Your task to perform on an android device: toggle show notifications on the lock screen Image 0: 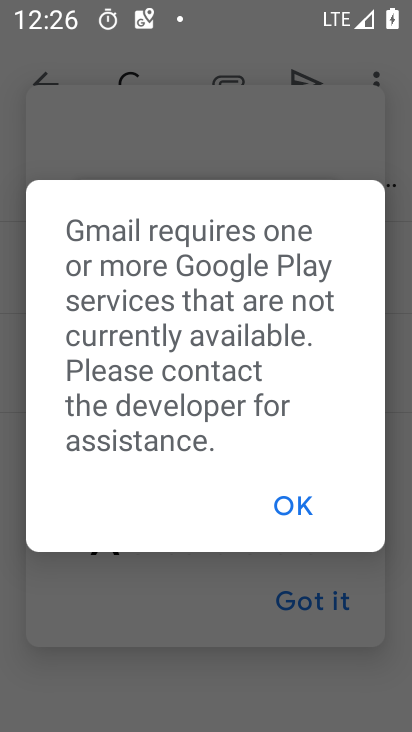
Step 0: click (314, 517)
Your task to perform on an android device: toggle show notifications on the lock screen Image 1: 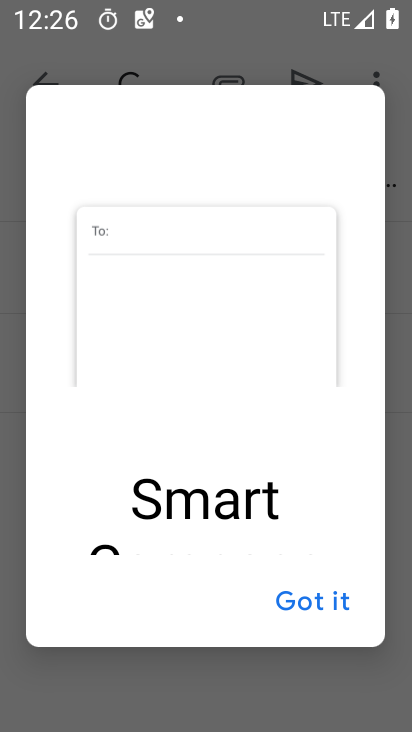
Step 1: press home button
Your task to perform on an android device: toggle show notifications on the lock screen Image 2: 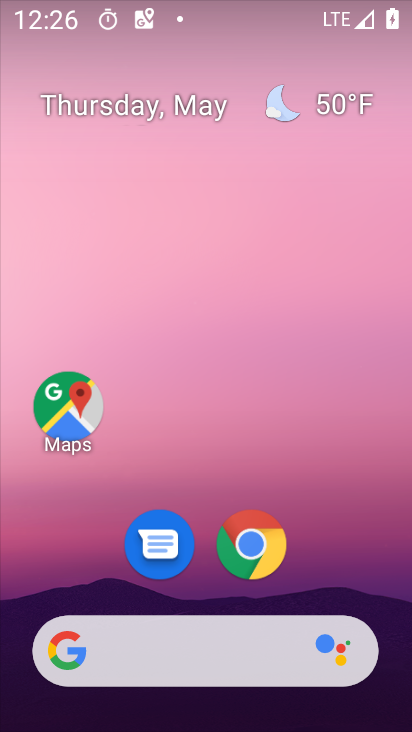
Step 2: drag from (165, 637) to (250, 60)
Your task to perform on an android device: toggle show notifications on the lock screen Image 3: 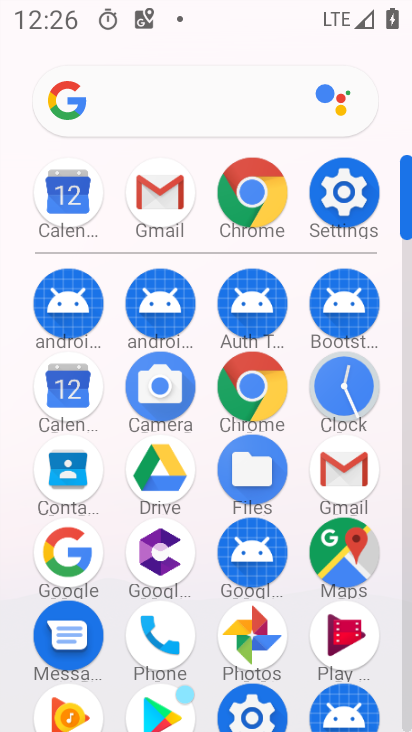
Step 3: click (345, 212)
Your task to perform on an android device: toggle show notifications on the lock screen Image 4: 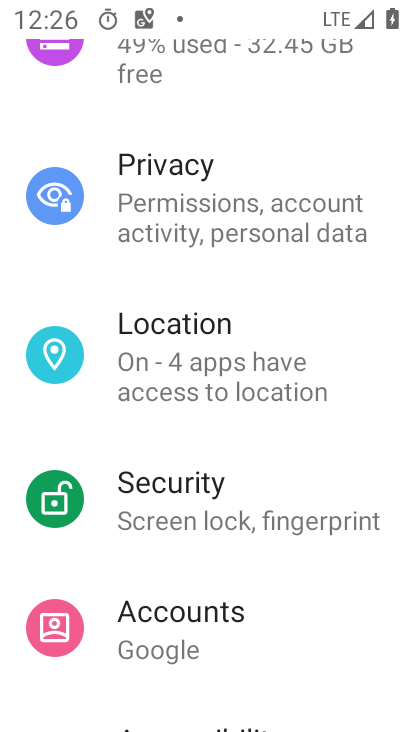
Step 4: drag from (196, 281) to (211, 523)
Your task to perform on an android device: toggle show notifications on the lock screen Image 5: 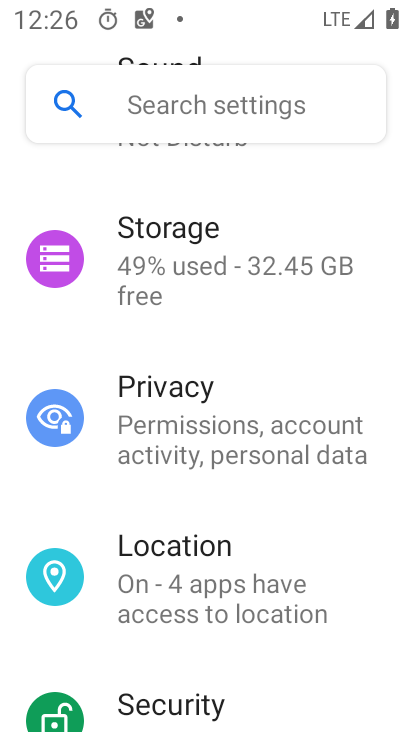
Step 5: drag from (185, 286) to (172, 731)
Your task to perform on an android device: toggle show notifications on the lock screen Image 6: 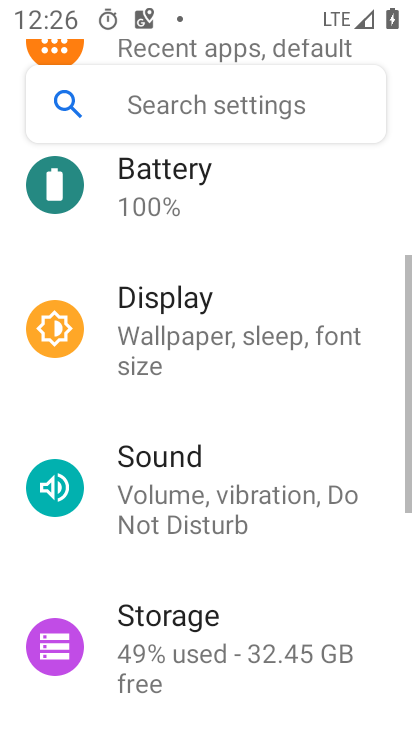
Step 6: drag from (169, 220) to (169, 662)
Your task to perform on an android device: toggle show notifications on the lock screen Image 7: 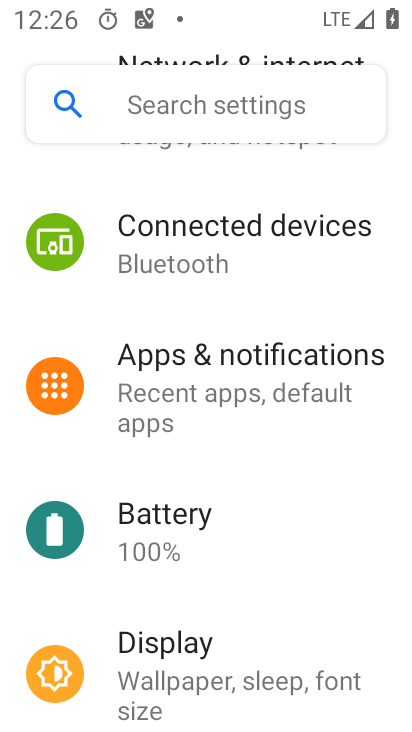
Step 7: click (202, 397)
Your task to perform on an android device: toggle show notifications on the lock screen Image 8: 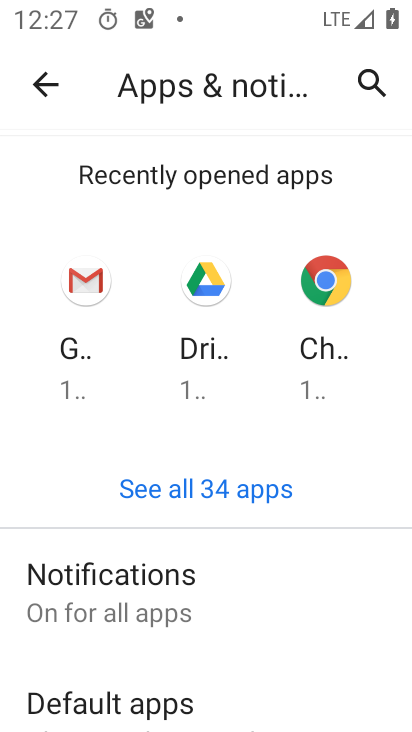
Step 8: click (179, 609)
Your task to perform on an android device: toggle show notifications on the lock screen Image 9: 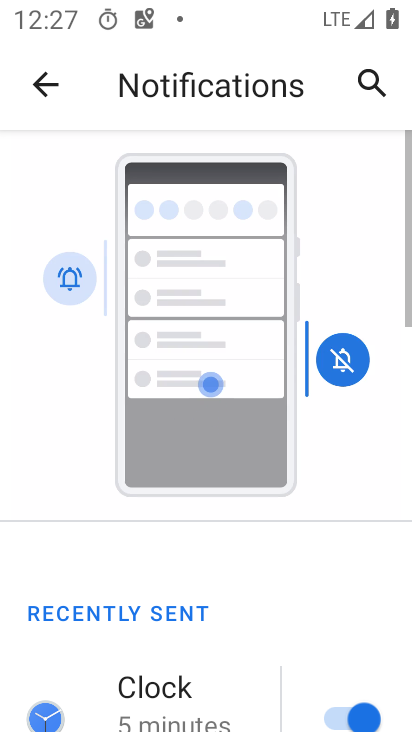
Step 9: drag from (207, 635) to (181, 162)
Your task to perform on an android device: toggle show notifications on the lock screen Image 10: 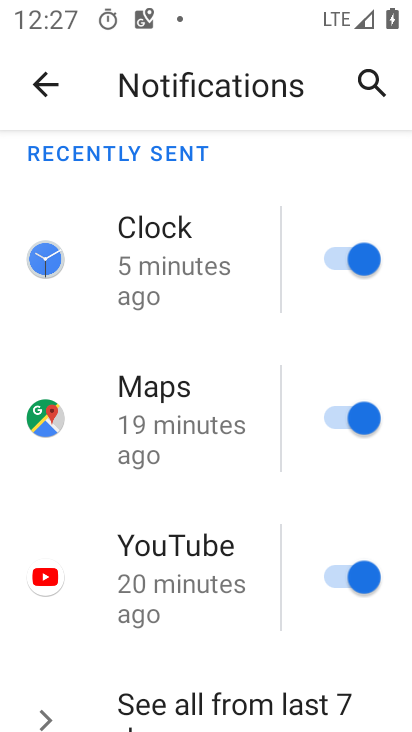
Step 10: drag from (241, 625) to (226, 195)
Your task to perform on an android device: toggle show notifications on the lock screen Image 11: 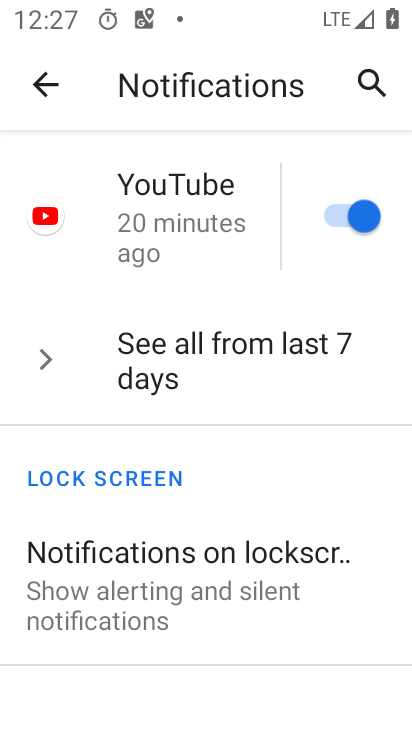
Step 11: click (205, 578)
Your task to perform on an android device: toggle show notifications on the lock screen Image 12: 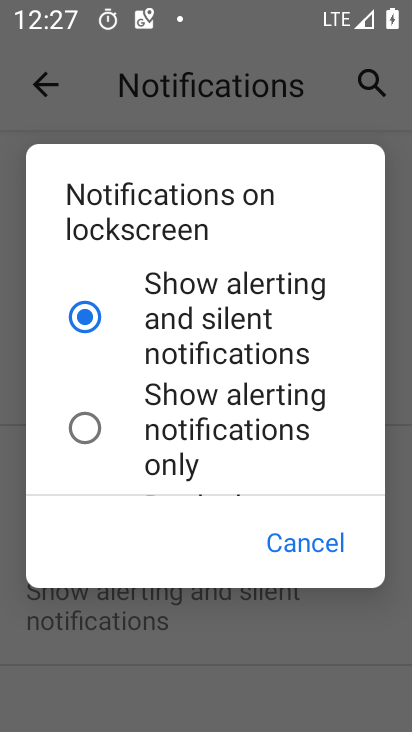
Step 12: click (204, 339)
Your task to perform on an android device: toggle show notifications on the lock screen Image 13: 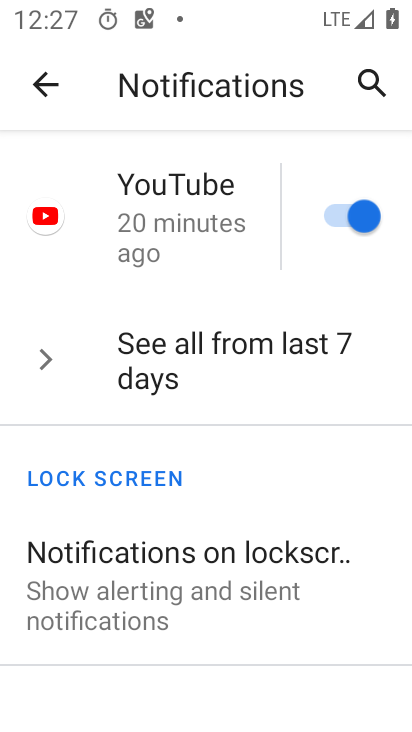
Step 13: task complete